Your task to perform on an android device: Open my contact list Image 0: 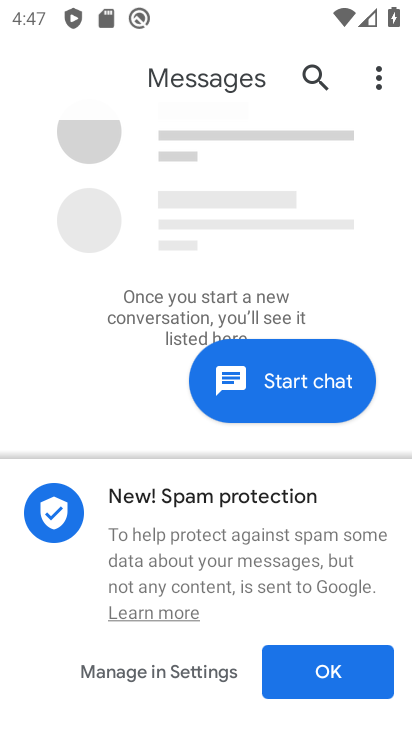
Step 0: press home button
Your task to perform on an android device: Open my contact list Image 1: 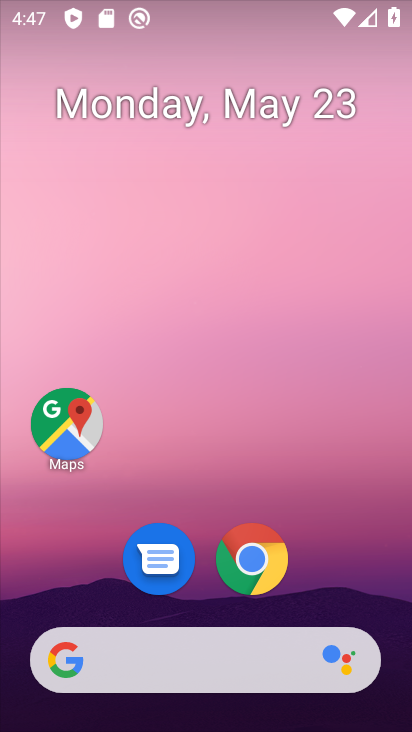
Step 1: drag from (323, 637) to (377, 146)
Your task to perform on an android device: Open my contact list Image 2: 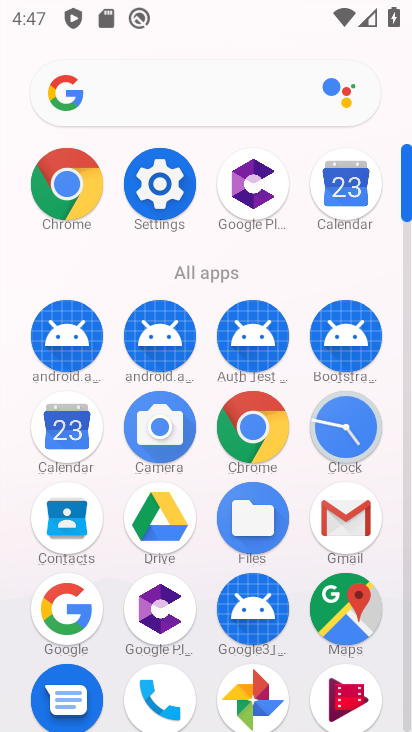
Step 2: click (59, 530)
Your task to perform on an android device: Open my contact list Image 3: 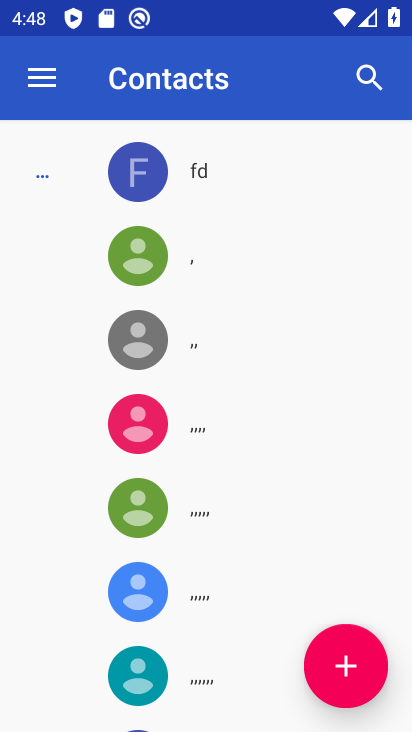
Step 3: task complete